Your task to perform on an android device: turn on translation in the chrome app Image 0: 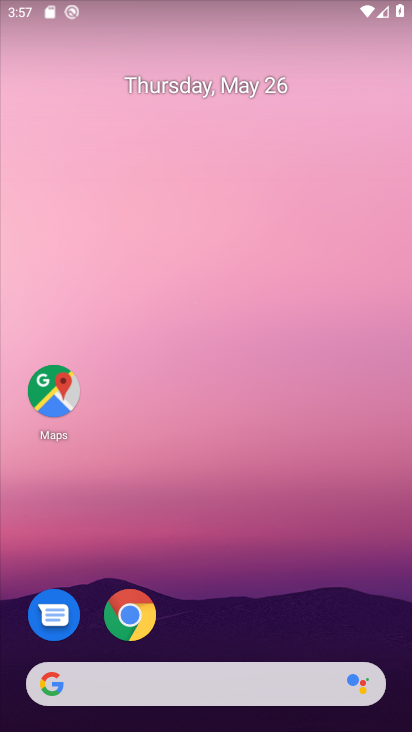
Step 0: click (132, 629)
Your task to perform on an android device: turn on translation in the chrome app Image 1: 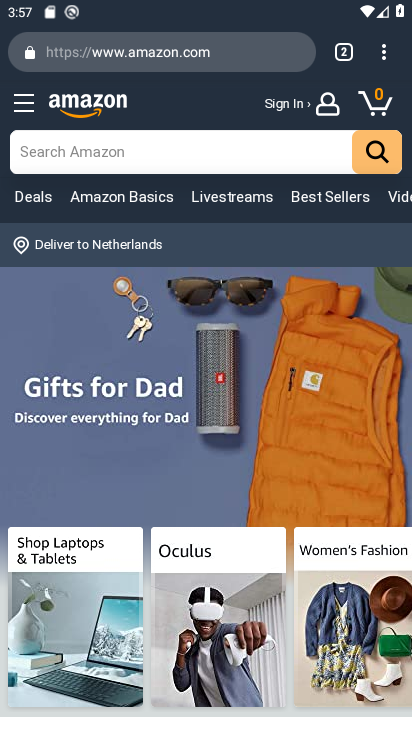
Step 1: drag from (395, 60) to (288, 660)
Your task to perform on an android device: turn on translation in the chrome app Image 2: 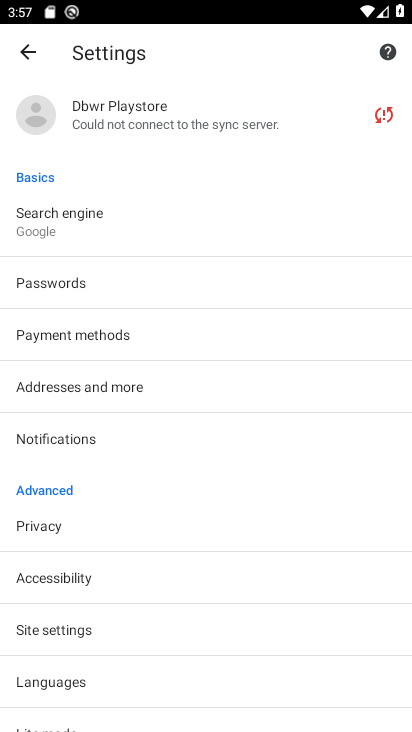
Step 2: click (123, 695)
Your task to perform on an android device: turn on translation in the chrome app Image 3: 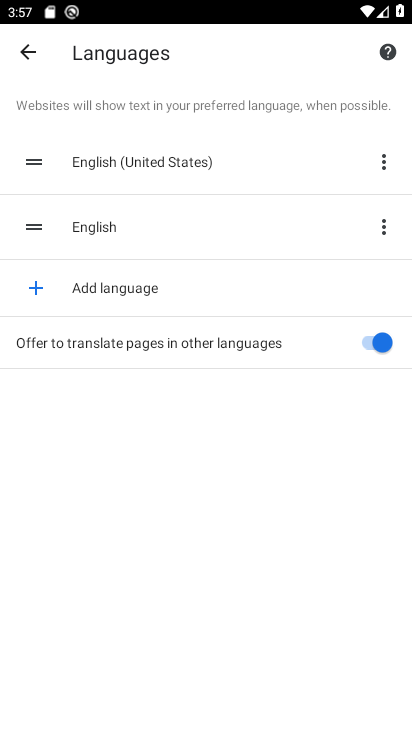
Step 3: task complete